Your task to perform on an android device: turn on improve location accuracy Image 0: 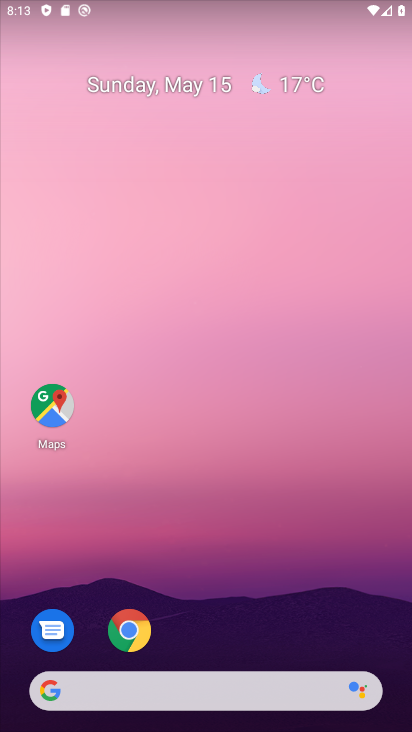
Step 0: drag from (276, 543) to (226, 26)
Your task to perform on an android device: turn on improve location accuracy Image 1: 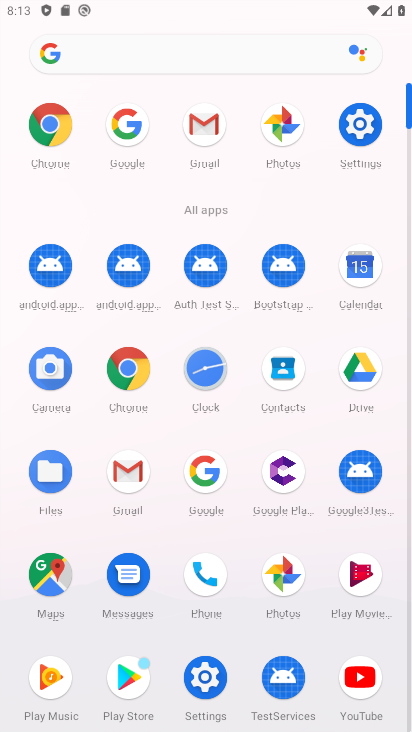
Step 1: click (352, 112)
Your task to perform on an android device: turn on improve location accuracy Image 2: 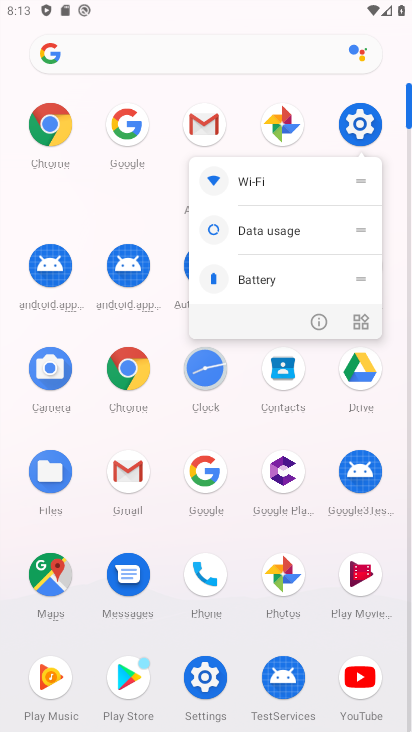
Step 2: click (347, 125)
Your task to perform on an android device: turn on improve location accuracy Image 3: 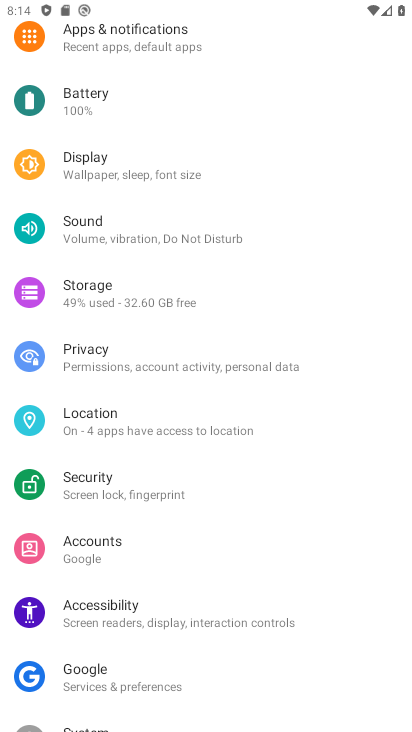
Step 3: click (98, 410)
Your task to perform on an android device: turn on improve location accuracy Image 4: 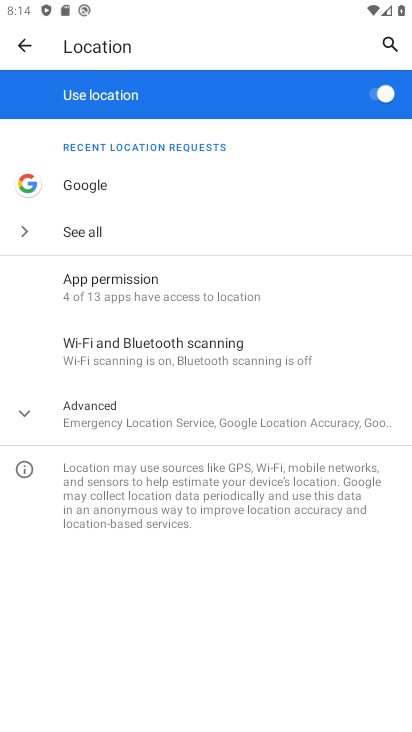
Step 4: click (162, 414)
Your task to perform on an android device: turn on improve location accuracy Image 5: 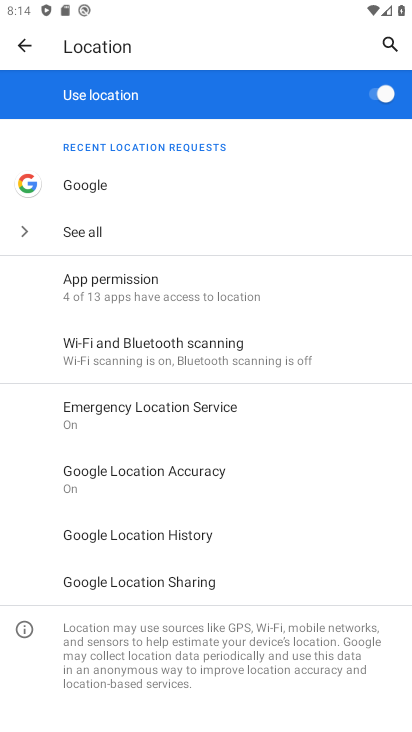
Step 5: click (128, 471)
Your task to perform on an android device: turn on improve location accuracy Image 6: 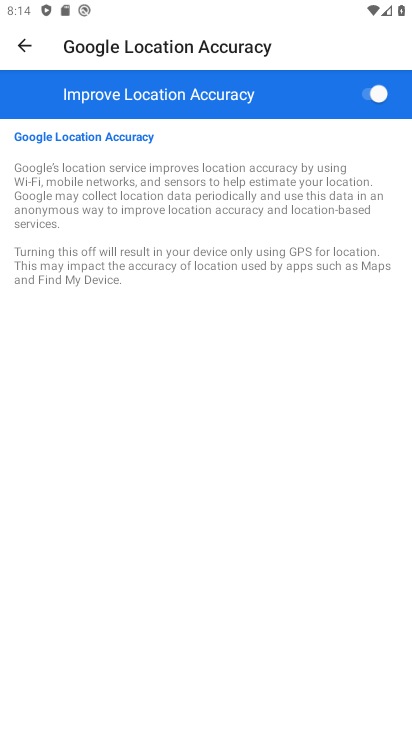
Step 6: task complete